Your task to perform on an android device: Go to sound settings Image 0: 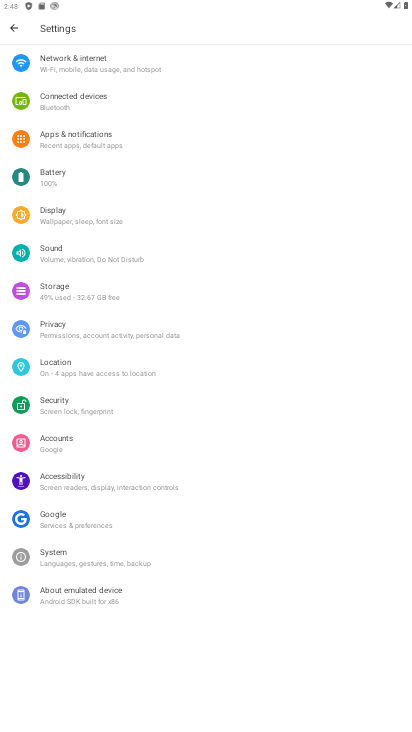
Step 0: click (82, 259)
Your task to perform on an android device: Go to sound settings Image 1: 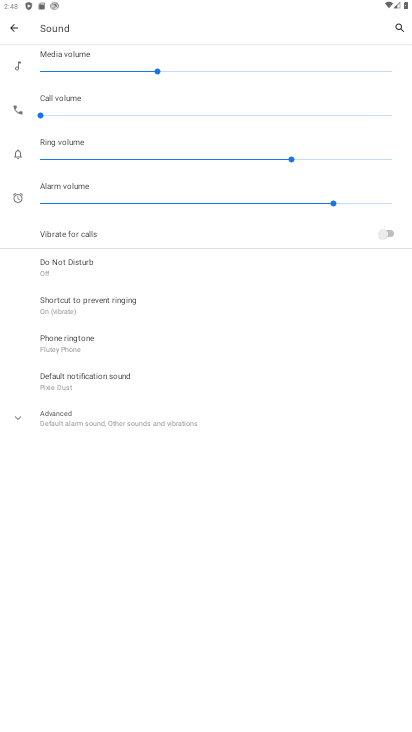
Step 1: task complete